Your task to perform on an android device: Turn off the flashlight Image 0: 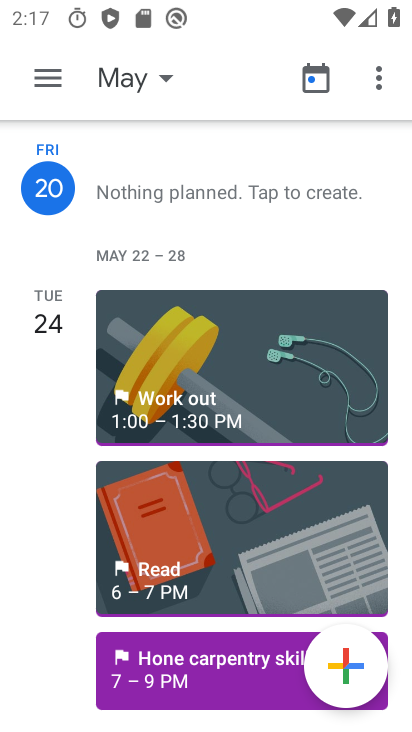
Step 0: press home button
Your task to perform on an android device: Turn off the flashlight Image 1: 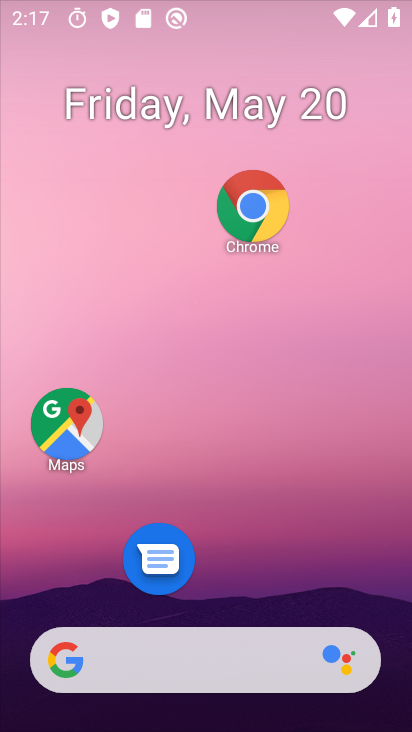
Step 1: drag from (244, 615) to (171, 33)
Your task to perform on an android device: Turn off the flashlight Image 2: 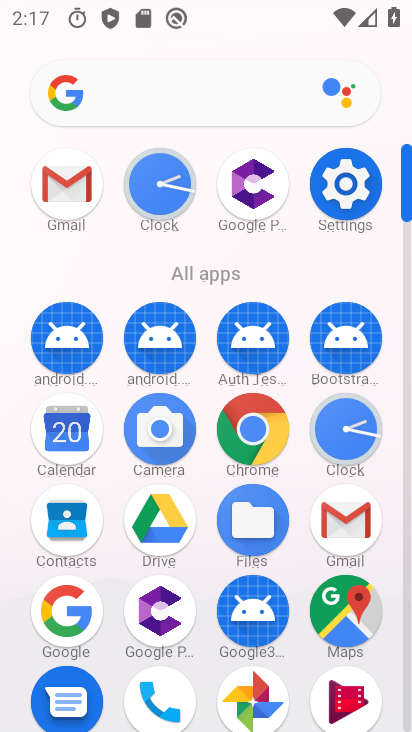
Step 2: click (365, 198)
Your task to perform on an android device: Turn off the flashlight Image 3: 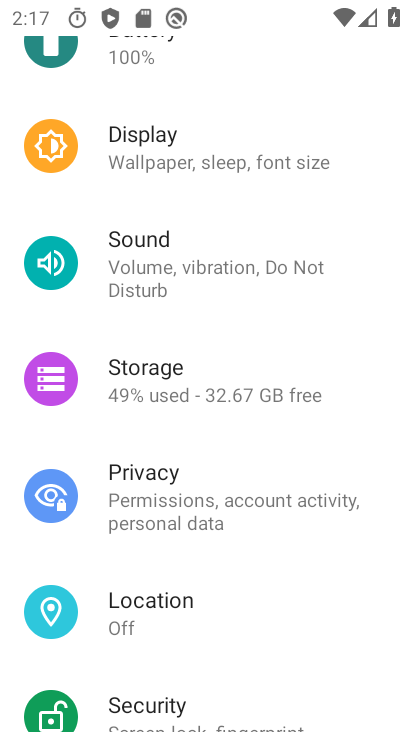
Step 3: task complete